Your task to perform on an android device: Go to wifi settings Image 0: 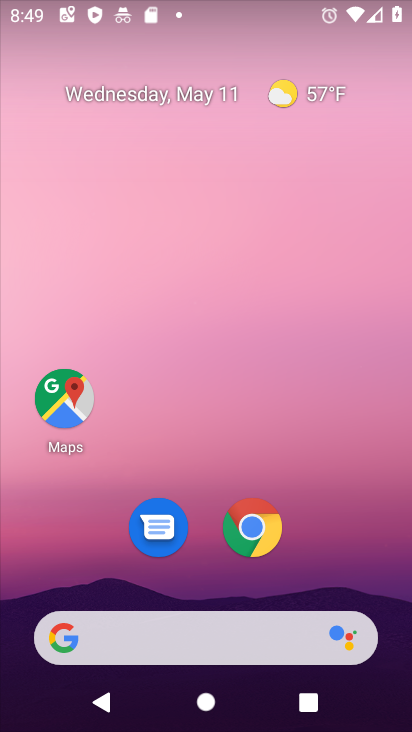
Step 0: drag from (350, 339) to (316, 5)
Your task to perform on an android device: Go to wifi settings Image 1: 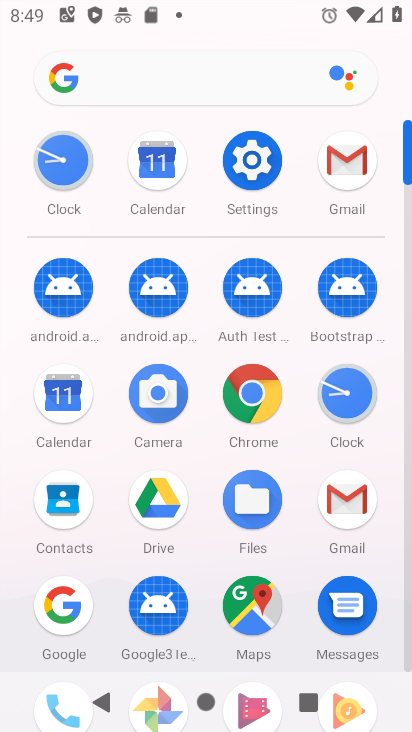
Step 1: click (253, 167)
Your task to perform on an android device: Go to wifi settings Image 2: 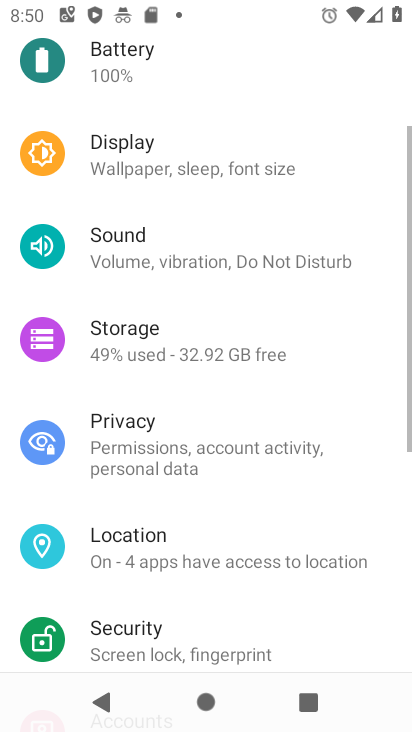
Step 2: drag from (253, 167) to (253, 540)
Your task to perform on an android device: Go to wifi settings Image 3: 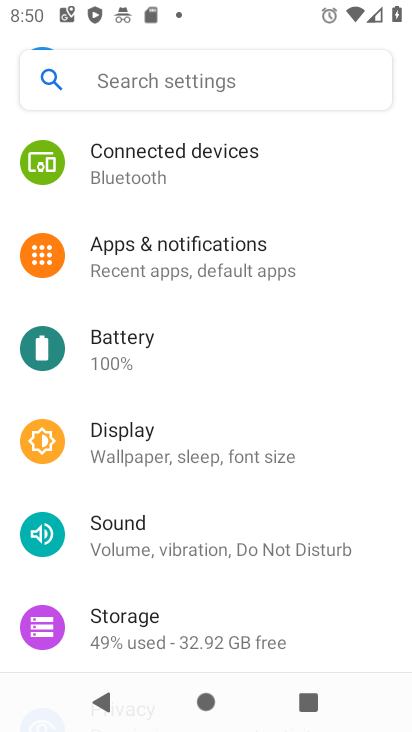
Step 3: drag from (179, 426) to (188, 571)
Your task to perform on an android device: Go to wifi settings Image 4: 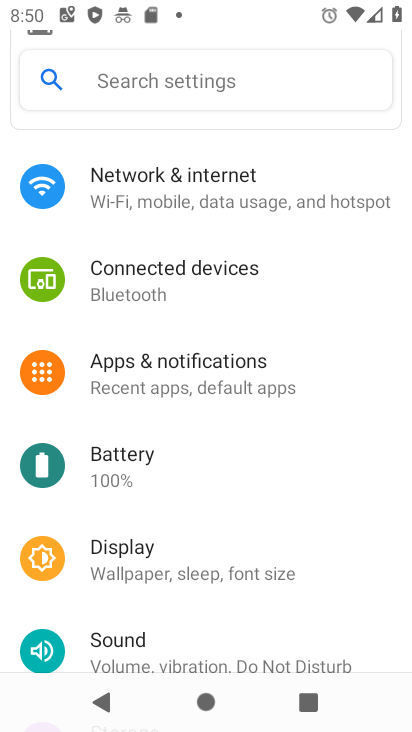
Step 4: click (145, 212)
Your task to perform on an android device: Go to wifi settings Image 5: 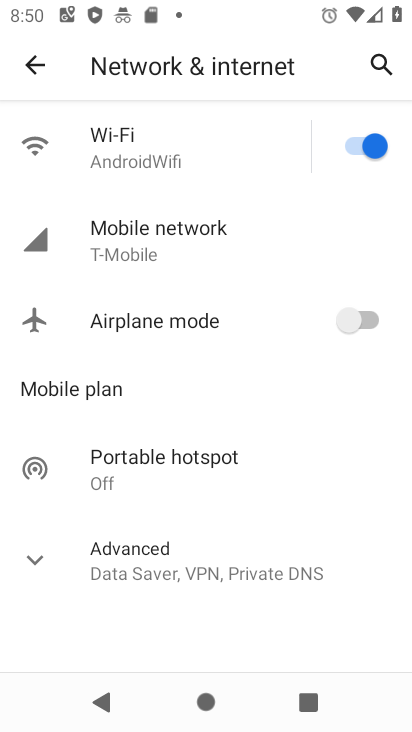
Step 5: click (102, 146)
Your task to perform on an android device: Go to wifi settings Image 6: 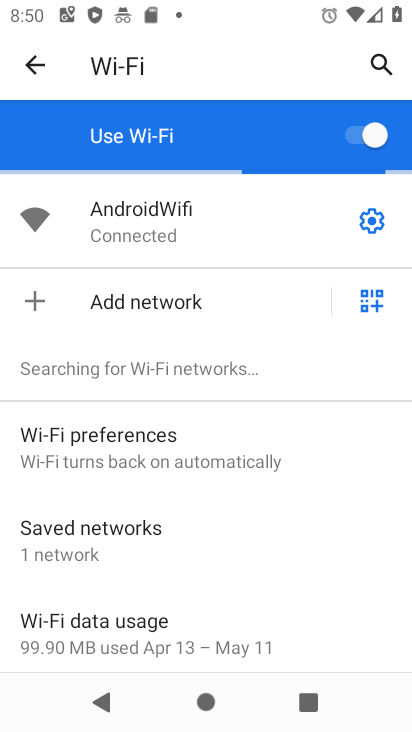
Step 6: task complete